Your task to perform on an android device: turn off sleep mode Image 0: 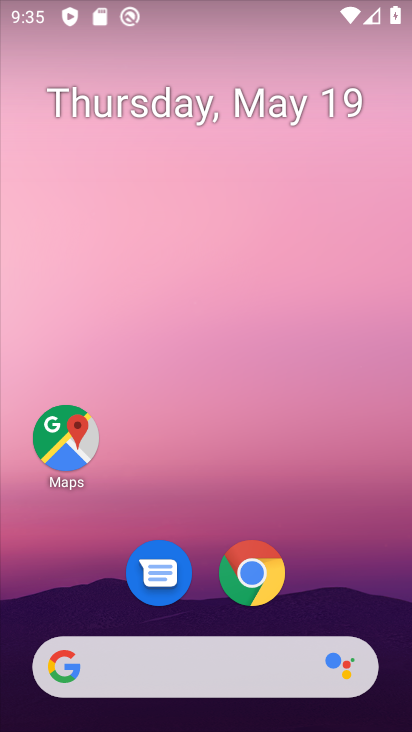
Step 0: drag from (210, 592) to (208, 213)
Your task to perform on an android device: turn off sleep mode Image 1: 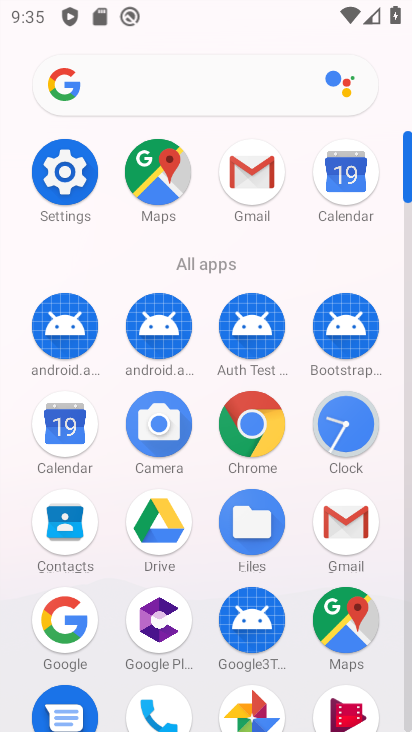
Step 1: click (52, 182)
Your task to perform on an android device: turn off sleep mode Image 2: 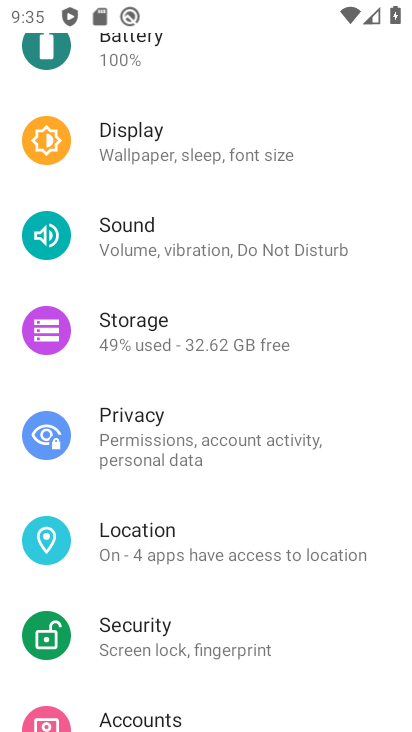
Step 2: click (140, 163)
Your task to perform on an android device: turn off sleep mode Image 3: 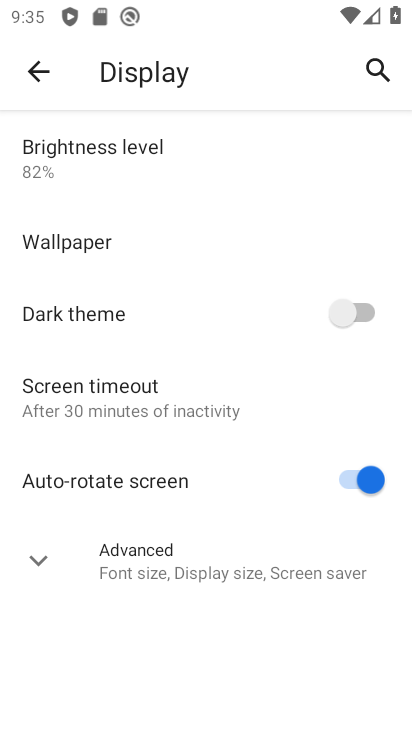
Step 3: click (107, 424)
Your task to perform on an android device: turn off sleep mode Image 4: 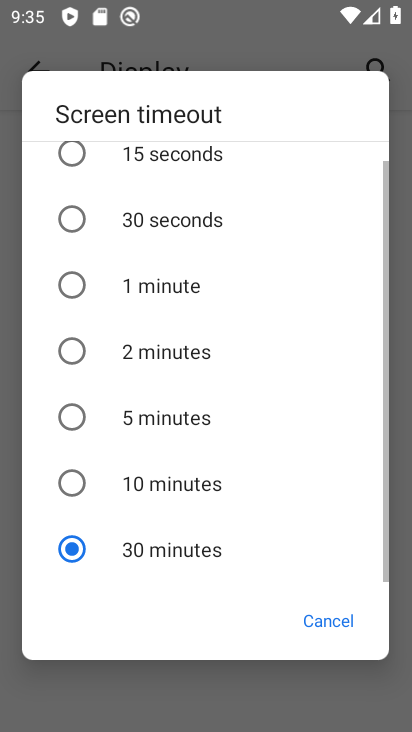
Step 4: click (125, 294)
Your task to perform on an android device: turn off sleep mode Image 5: 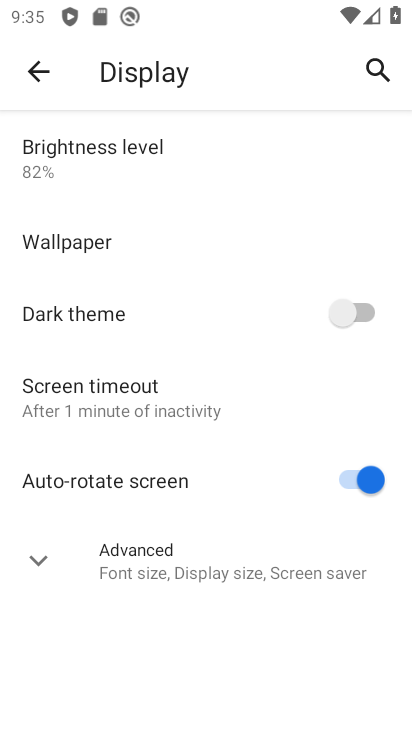
Step 5: task complete